Your task to perform on an android device: Open the web browser Image 0: 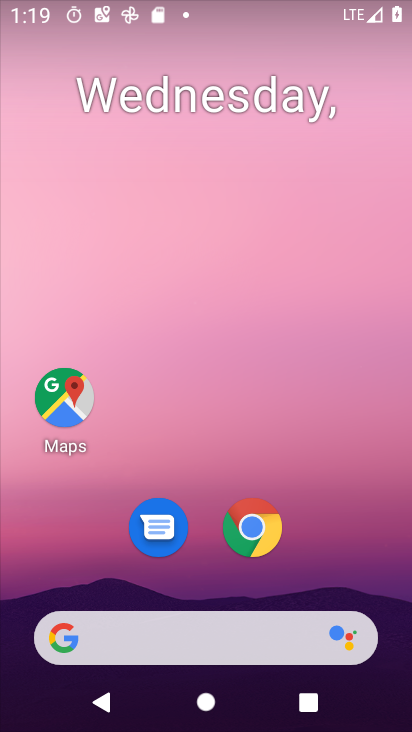
Step 0: drag from (283, 620) to (343, 28)
Your task to perform on an android device: Open the web browser Image 1: 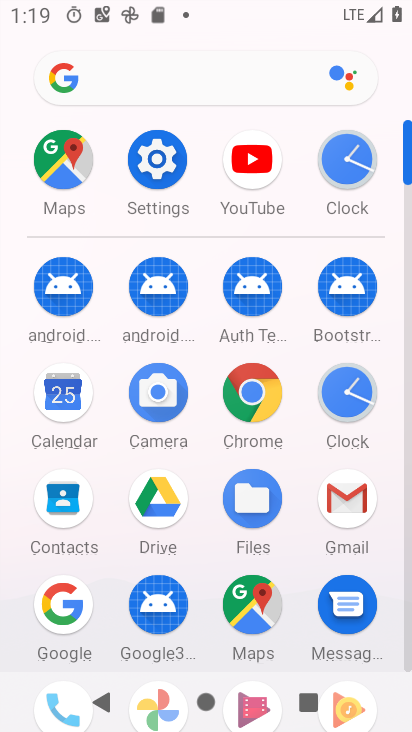
Step 1: click (264, 398)
Your task to perform on an android device: Open the web browser Image 2: 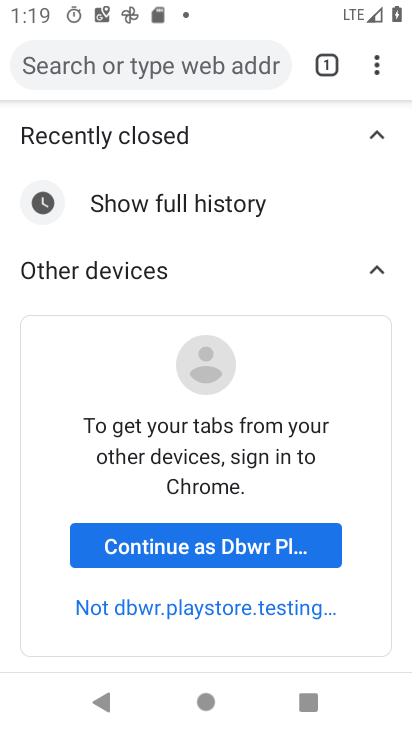
Step 2: task complete